Your task to perform on an android device: snooze an email in the gmail app Image 0: 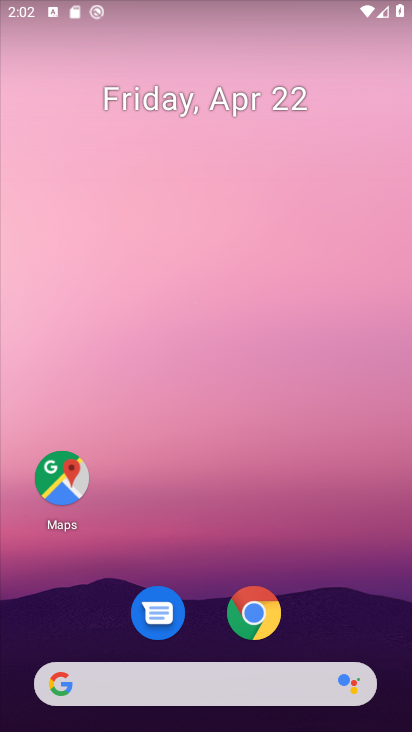
Step 0: drag from (247, 725) to (264, 12)
Your task to perform on an android device: snooze an email in the gmail app Image 1: 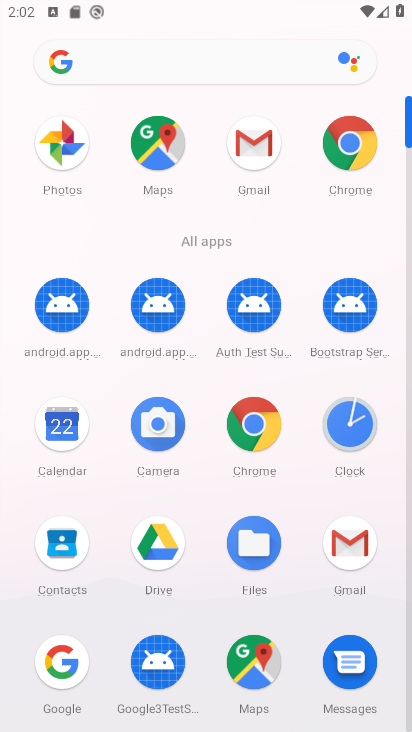
Step 1: click (249, 141)
Your task to perform on an android device: snooze an email in the gmail app Image 2: 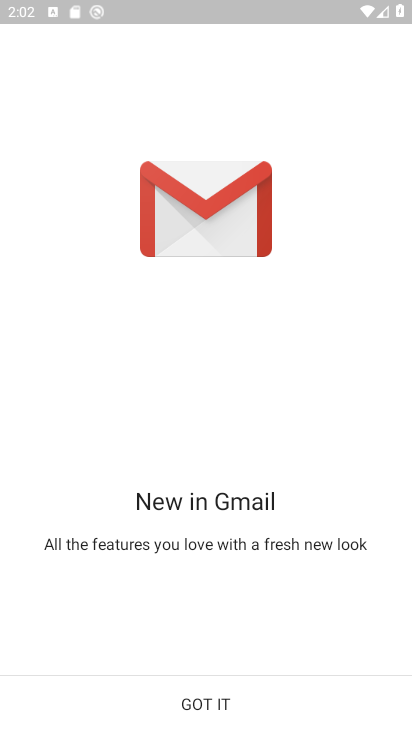
Step 2: click (217, 705)
Your task to perform on an android device: snooze an email in the gmail app Image 3: 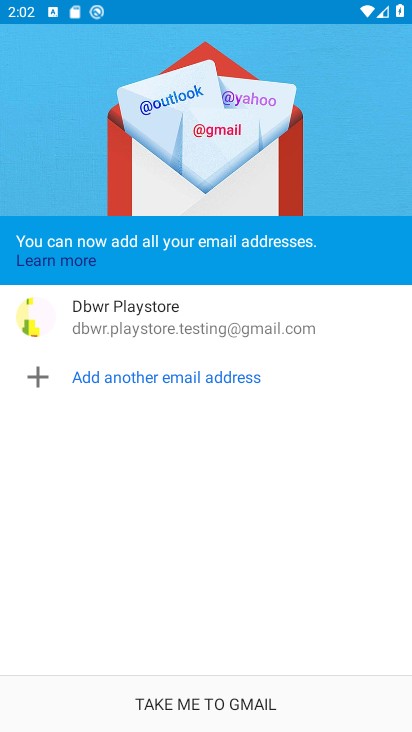
Step 3: click (217, 705)
Your task to perform on an android device: snooze an email in the gmail app Image 4: 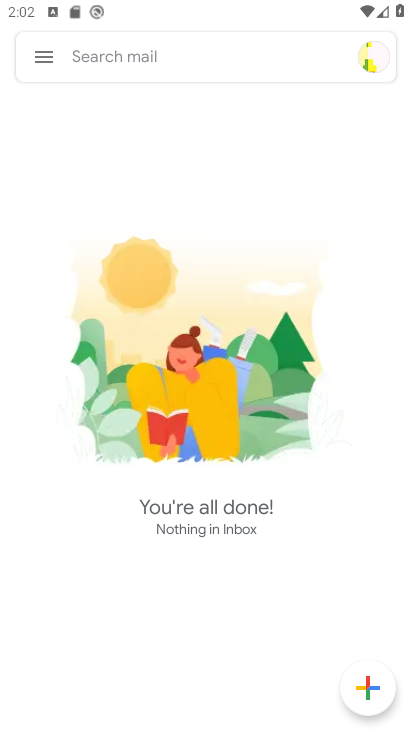
Step 4: click (44, 58)
Your task to perform on an android device: snooze an email in the gmail app Image 5: 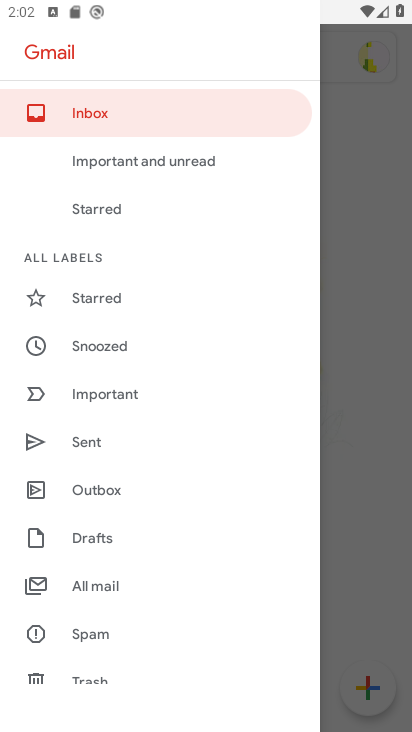
Step 5: click (124, 346)
Your task to perform on an android device: snooze an email in the gmail app Image 6: 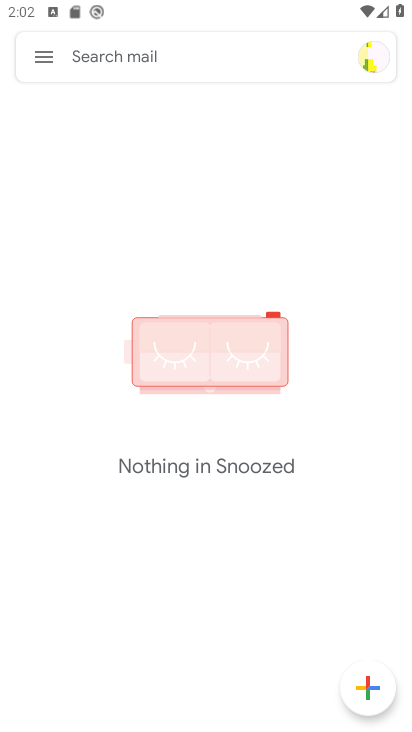
Step 6: click (33, 68)
Your task to perform on an android device: snooze an email in the gmail app Image 7: 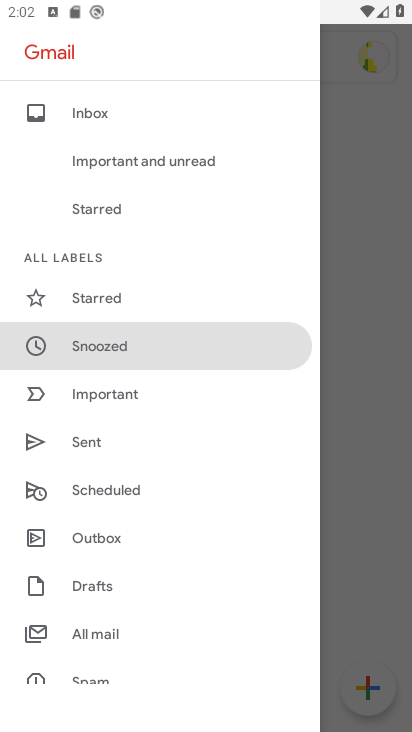
Step 7: click (96, 630)
Your task to perform on an android device: snooze an email in the gmail app Image 8: 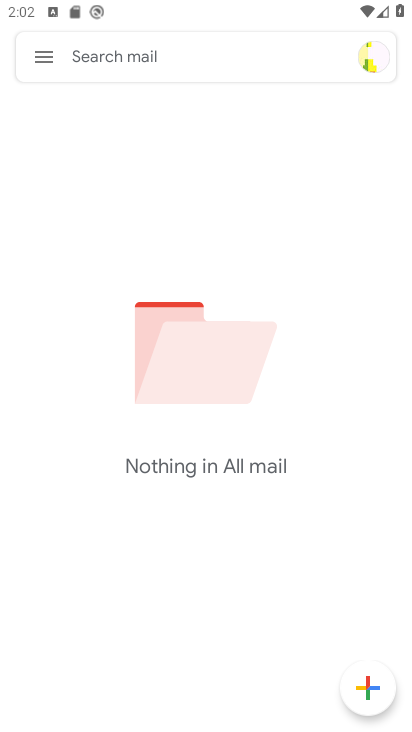
Step 8: task complete